Your task to perform on an android device: Open notification settings Image 0: 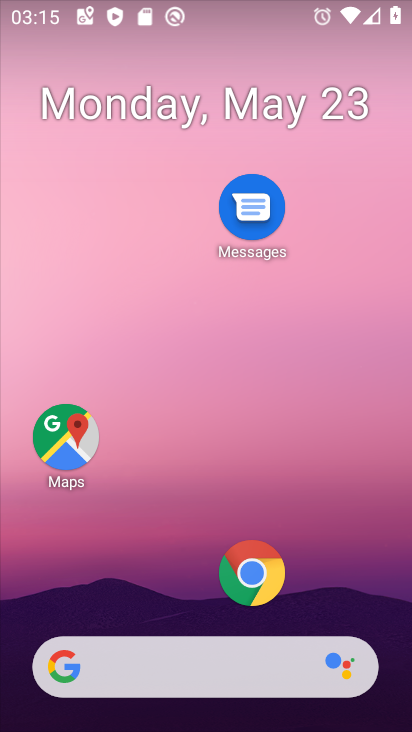
Step 0: drag from (169, 687) to (200, 152)
Your task to perform on an android device: Open notification settings Image 1: 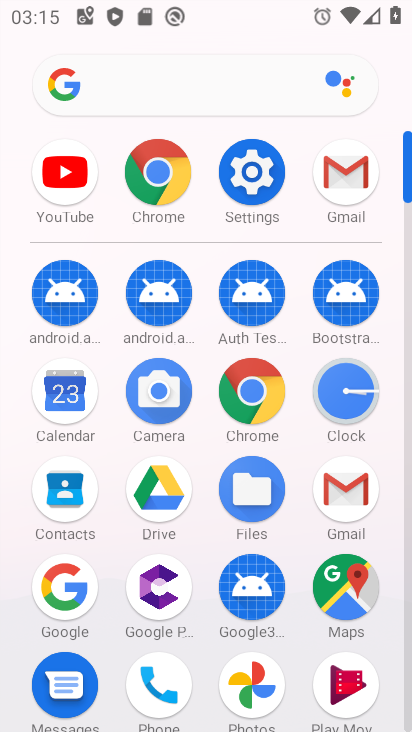
Step 1: click (260, 163)
Your task to perform on an android device: Open notification settings Image 2: 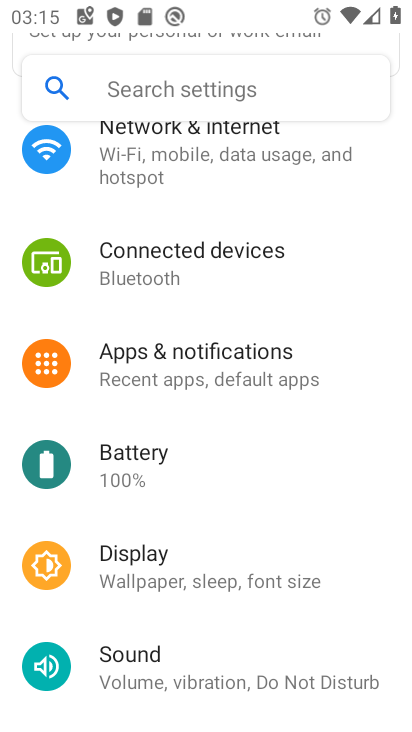
Step 2: click (179, 369)
Your task to perform on an android device: Open notification settings Image 3: 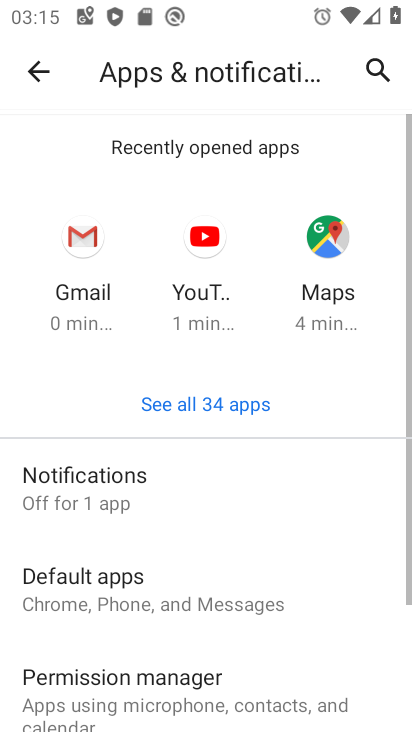
Step 3: task complete